Your task to perform on an android device: turn off data saver in the chrome app Image 0: 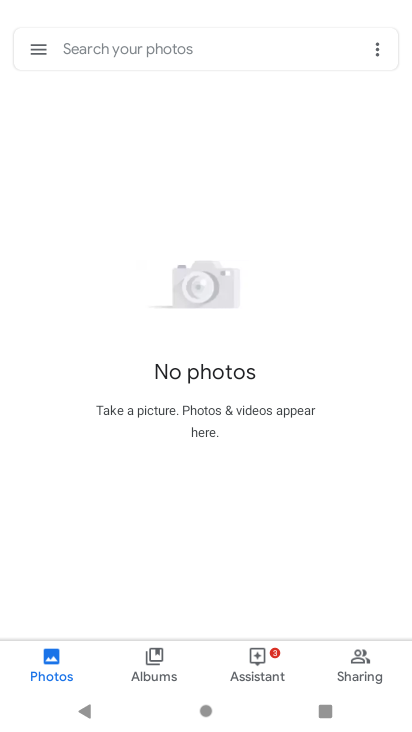
Step 0: press back button
Your task to perform on an android device: turn off data saver in the chrome app Image 1: 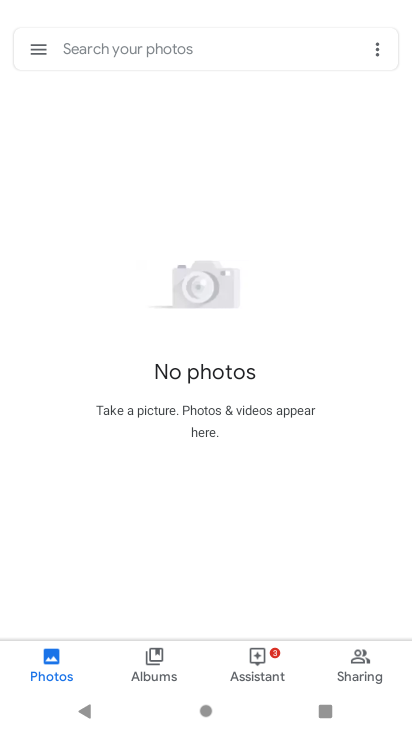
Step 1: press back button
Your task to perform on an android device: turn off data saver in the chrome app Image 2: 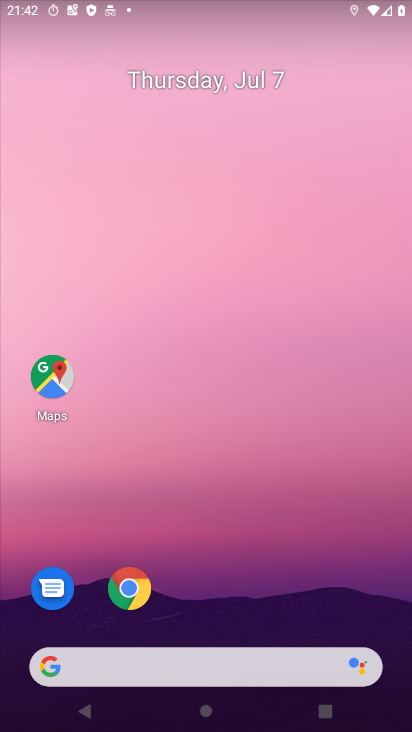
Step 2: drag from (255, 681) to (196, 169)
Your task to perform on an android device: turn off data saver in the chrome app Image 3: 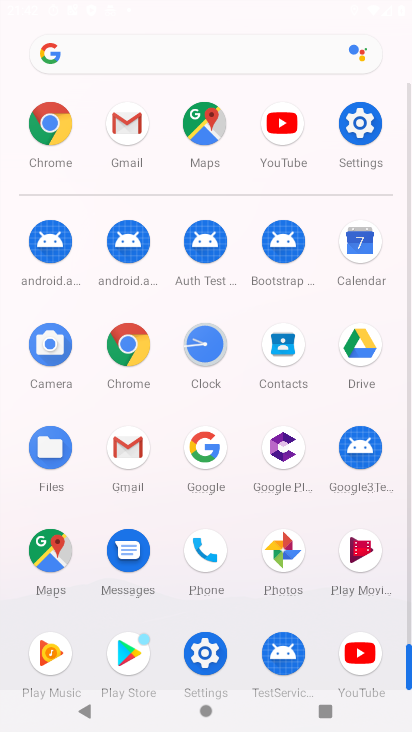
Step 3: click (49, 130)
Your task to perform on an android device: turn off data saver in the chrome app Image 4: 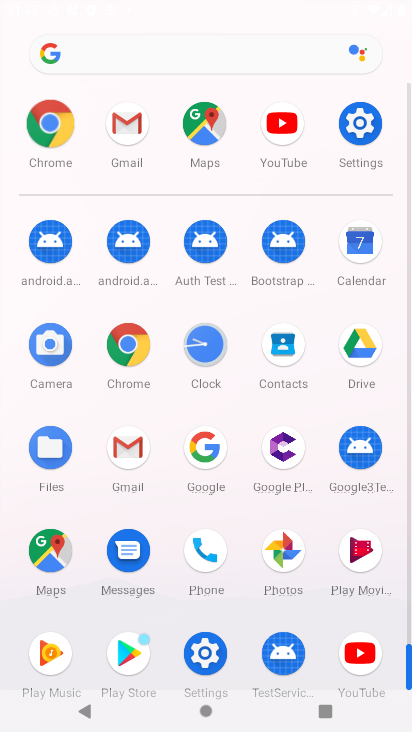
Step 4: click (49, 129)
Your task to perform on an android device: turn off data saver in the chrome app Image 5: 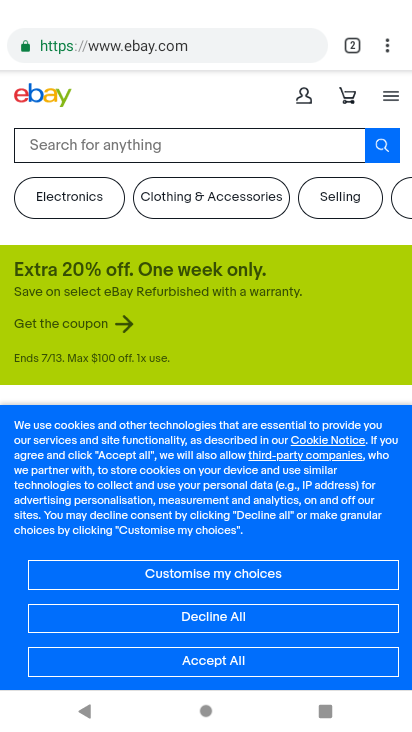
Step 5: click (384, 51)
Your task to perform on an android device: turn off data saver in the chrome app Image 6: 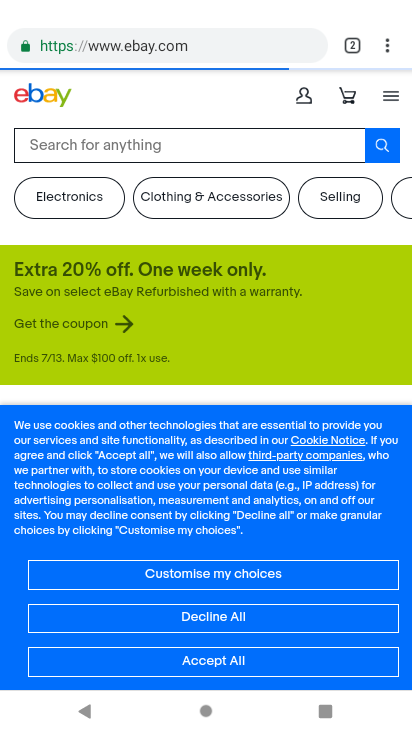
Step 6: drag from (384, 51) to (227, 560)
Your task to perform on an android device: turn off data saver in the chrome app Image 7: 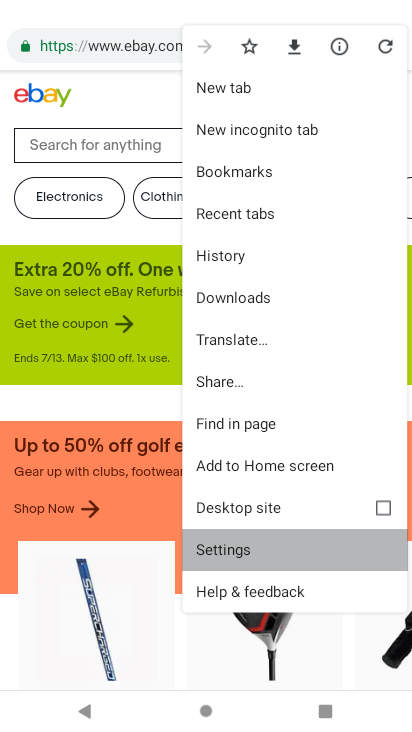
Step 7: click (226, 558)
Your task to perform on an android device: turn off data saver in the chrome app Image 8: 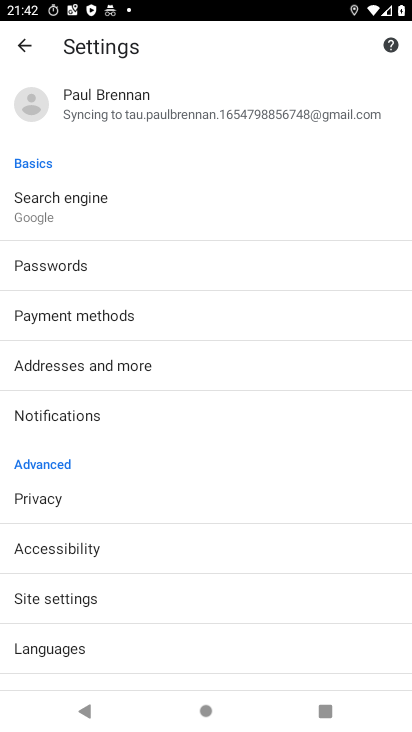
Step 8: drag from (133, 574) to (94, 260)
Your task to perform on an android device: turn off data saver in the chrome app Image 9: 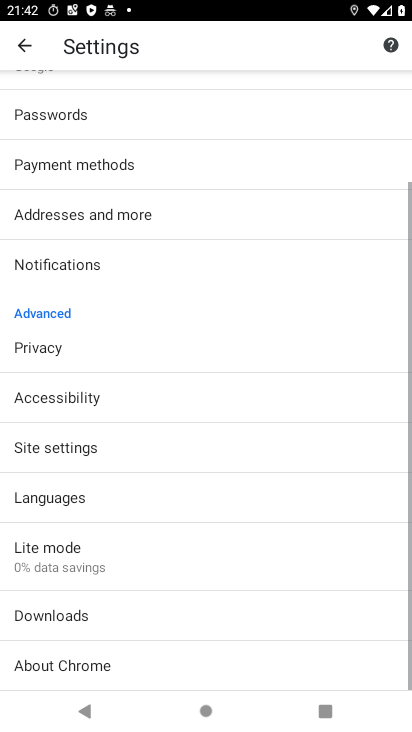
Step 9: drag from (155, 641) to (183, 413)
Your task to perform on an android device: turn off data saver in the chrome app Image 10: 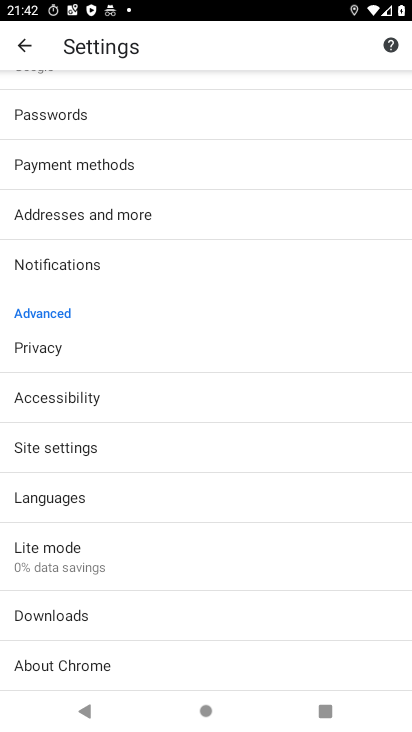
Step 10: click (77, 562)
Your task to perform on an android device: turn off data saver in the chrome app Image 11: 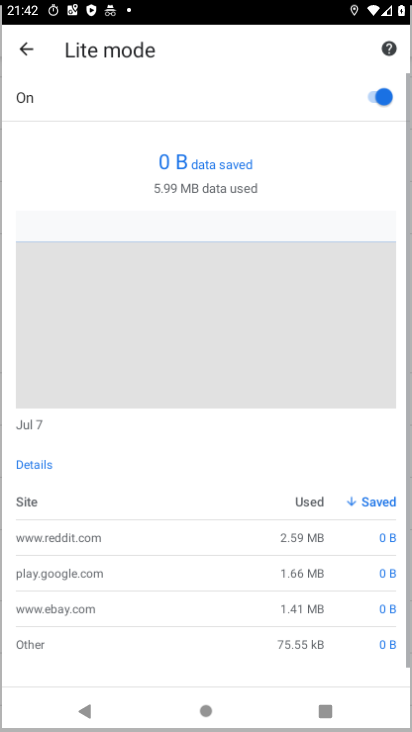
Step 11: click (81, 564)
Your task to perform on an android device: turn off data saver in the chrome app Image 12: 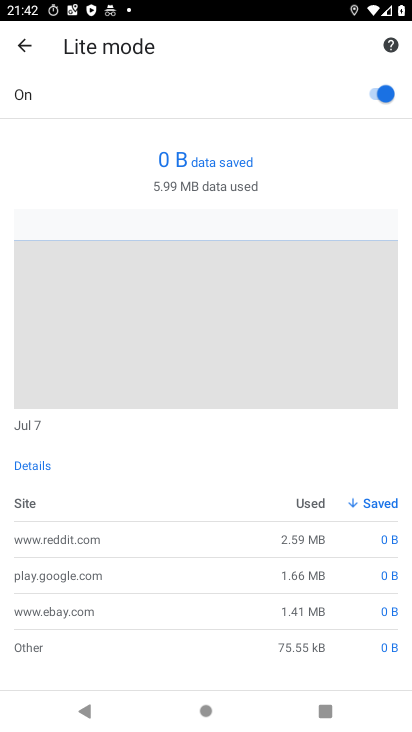
Step 12: click (386, 92)
Your task to perform on an android device: turn off data saver in the chrome app Image 13: 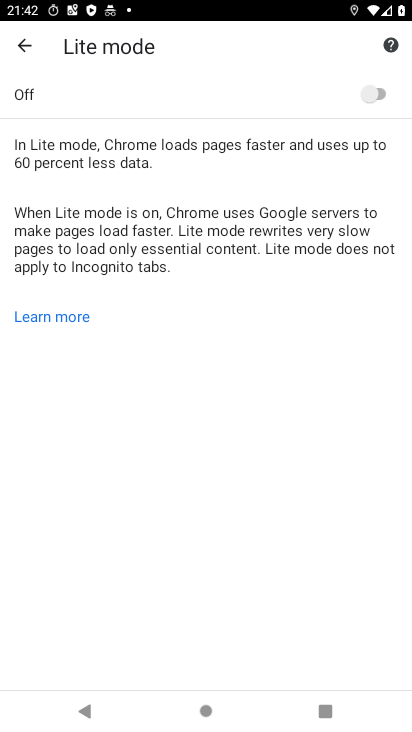
Step 13: task complete